Your task to perform on an android device: Search for desk lamps on article.com Image 0: 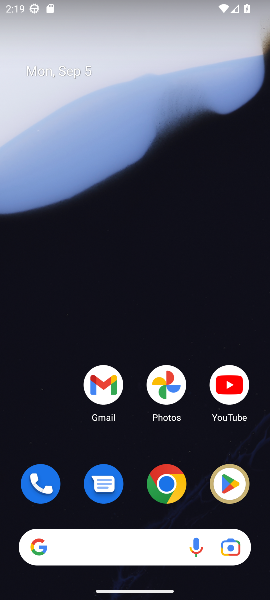
Step 0: click (166, 485)
Your task to perform on an android device: Search for desk lamps on article.com Image 1: 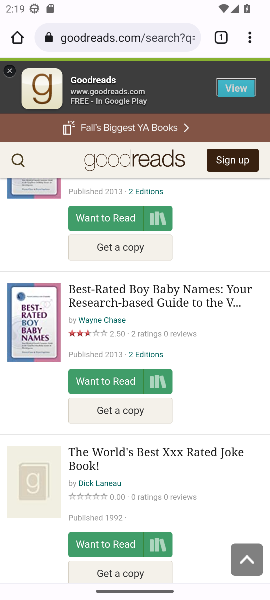
Step 1: click (112, 34)
Your task to perform on an android device: Search for desk lamps on article.com Image 2: 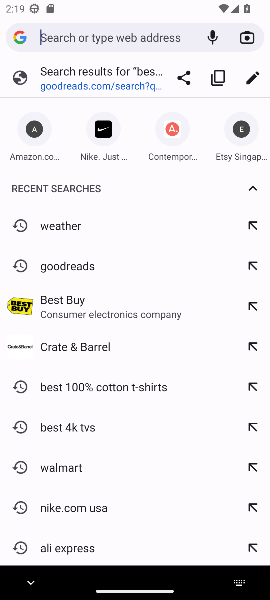
Step 2: type "article.com"
Your task to perform on an android device: Search for desk lamps on article.com Image 3: 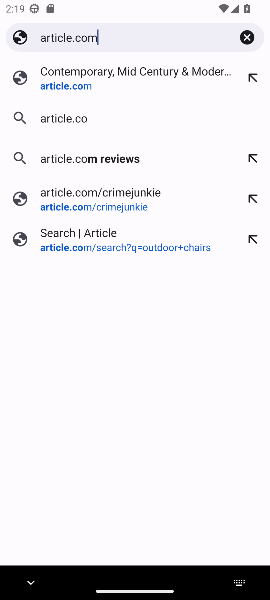
Step 3: press enter
Your task to perform on an android device: Search for desk lamps on article.com Image 4: 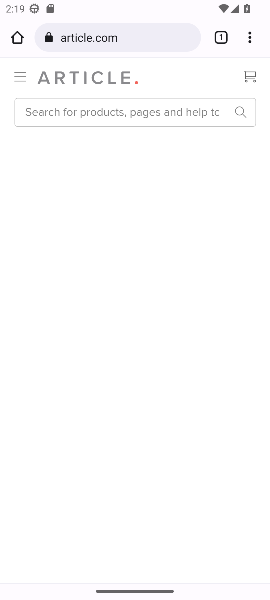
Step 4: click (107, 105)
Your task to perform on an android device: Search for desk lamps on article.com Image 5: 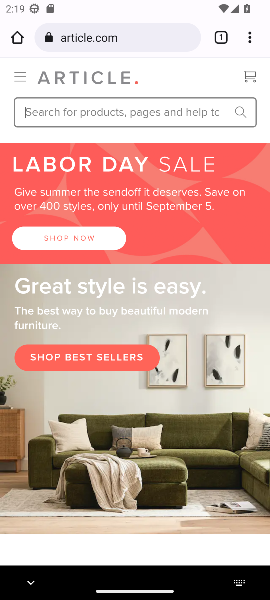
Step 5: click (102, 105)
Your task to perform on an android device: Search for desk lamps on article.com Image 6: 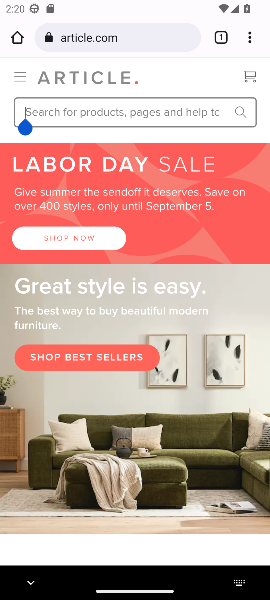
Step 6: type "desk lamps "
Your task to perform on an android device: Search for desk lamps on article.com Image 7: 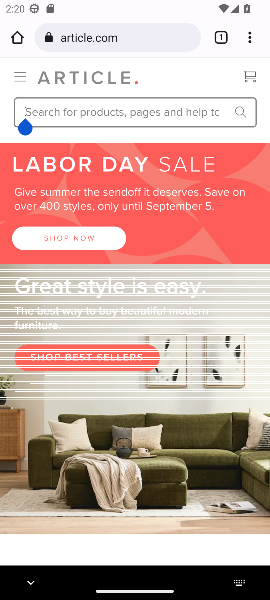
Step 7: press enter
Your task to perform on an android device: Search for desk lamps on article.com Image 8: 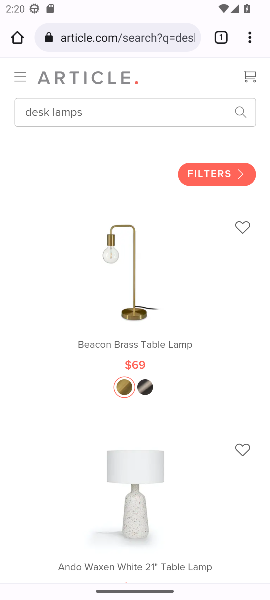
Step 8: task complete